Your task to perform on an android device: find photos in the google photos app Image 0: 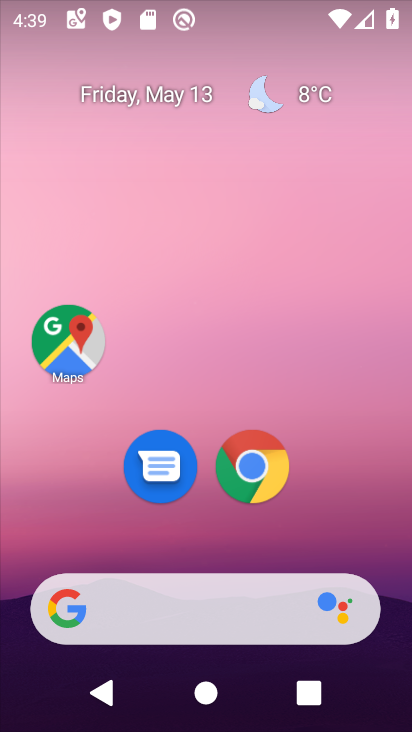
Step 0: drag from (391, 610) to (344, 67)
Your task to perform on an android device: find photos in the google photos app Image 1: 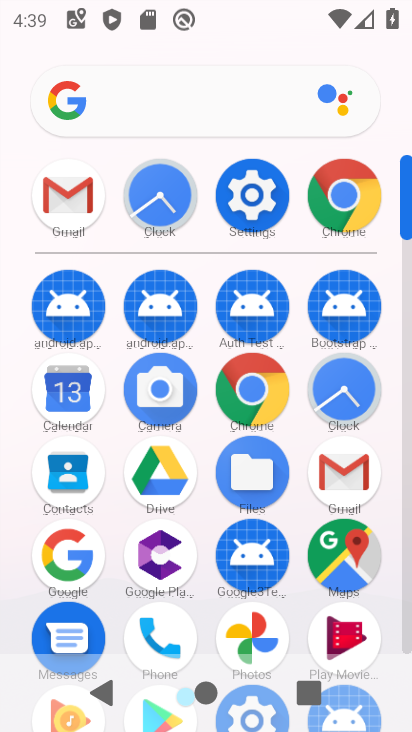
Step 1: click (409, 641)
Your task to perform on an android device: find photos in the google photos app Image 2: 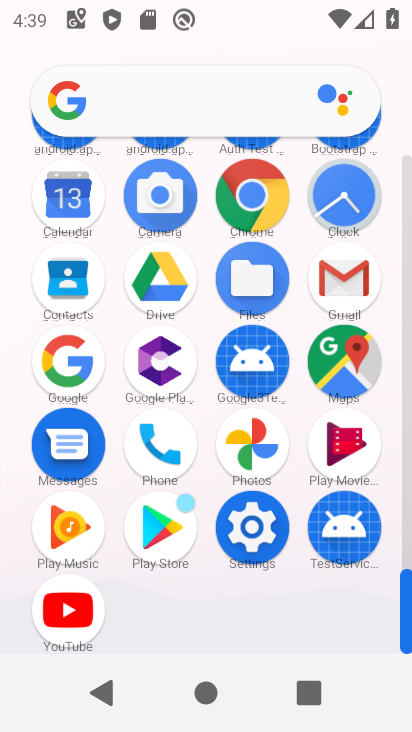
Step 2: click (251, 443)
Your task to perform on an android device: find photos in the google photos app Image 3: 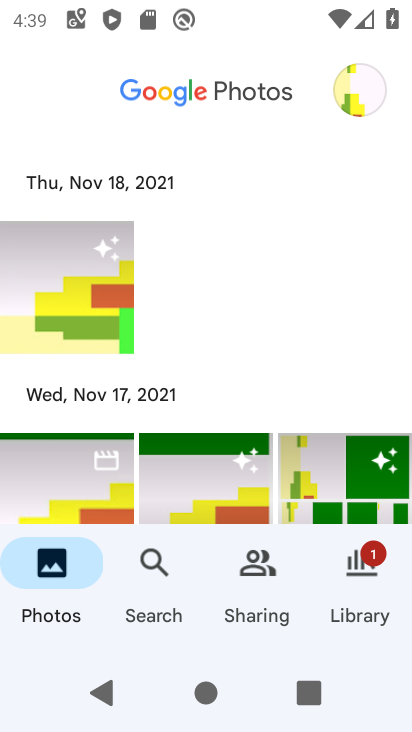
Step 3: task complete